Your task to perform on an android device: Turn off the flashlight Image 0: 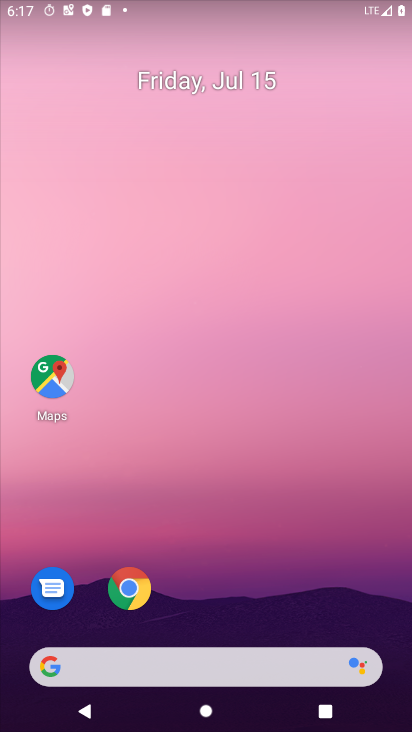
Step 0: drag from (192, 4) to (103, 610)
Your task to perform on an android device: Turn off the flashlight Image 1: 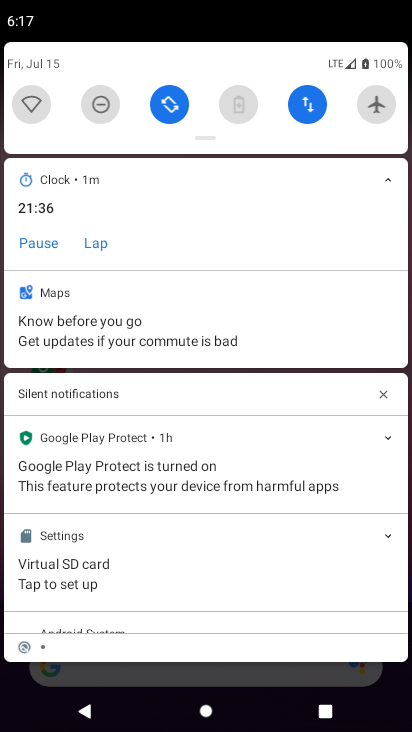
Step 1: task complete